Your task to perform on an android device: open a bookmark in the chrome app Image 0: 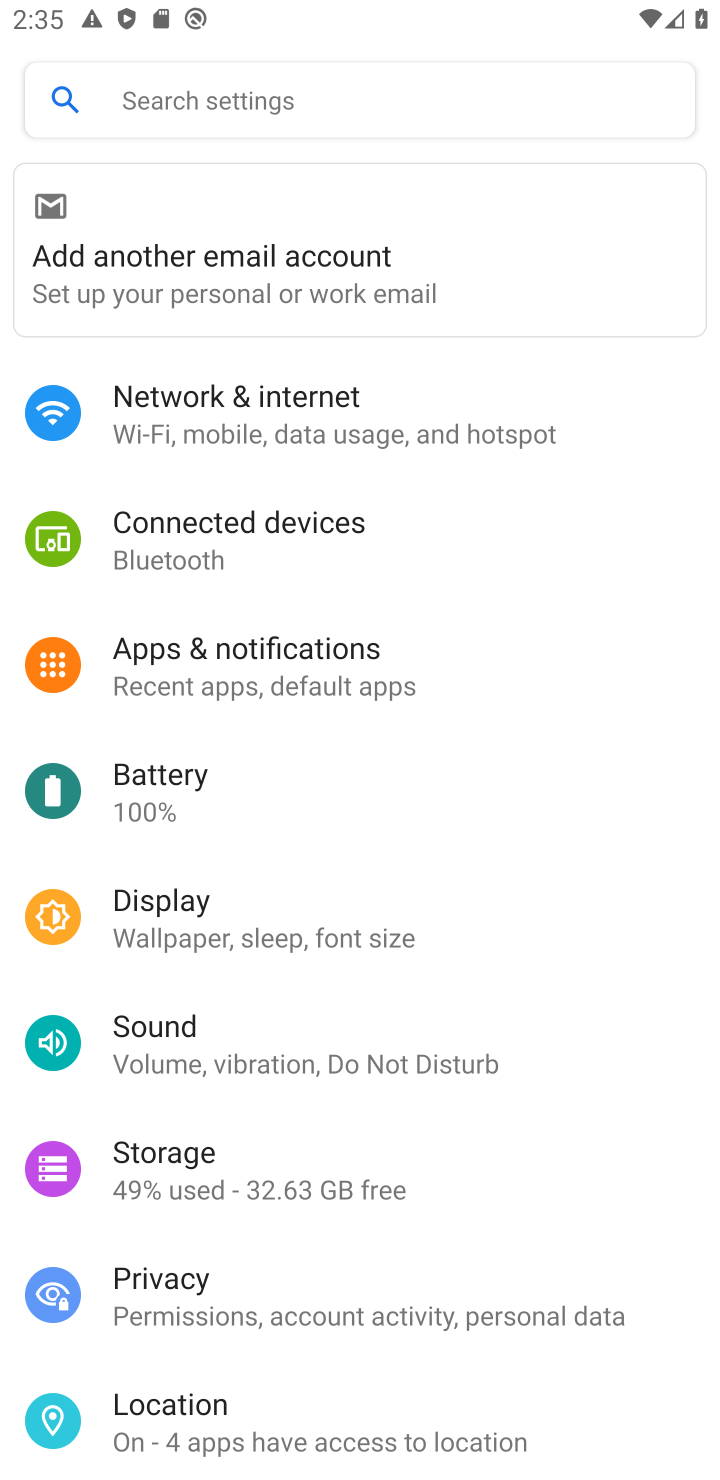
Step 0: press home button
Your task to perform on an android device: open a bookmark in the chrome app Image 1: 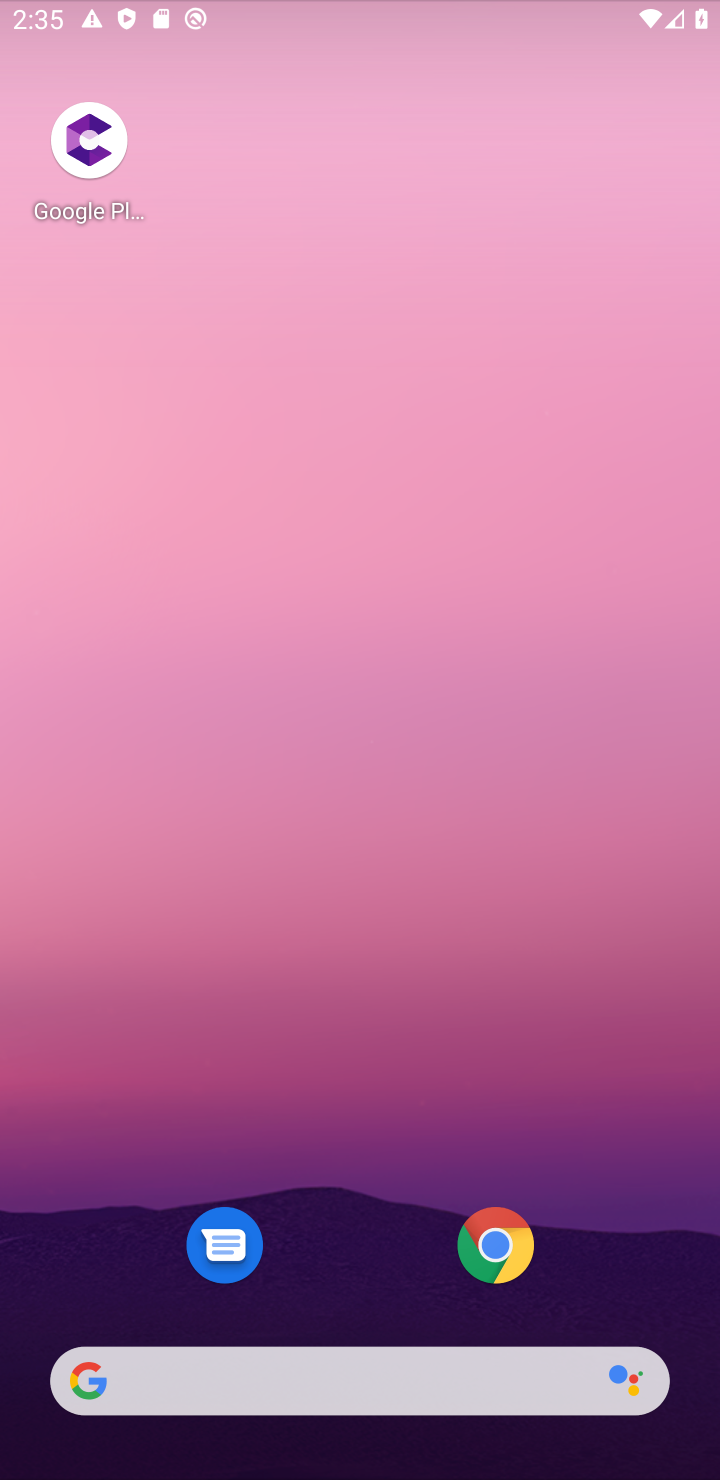
Step 1: drag from (353, 900) to (379, 488)
Your task to perform on an android device: open a bookmark in the chrome app Image 2: 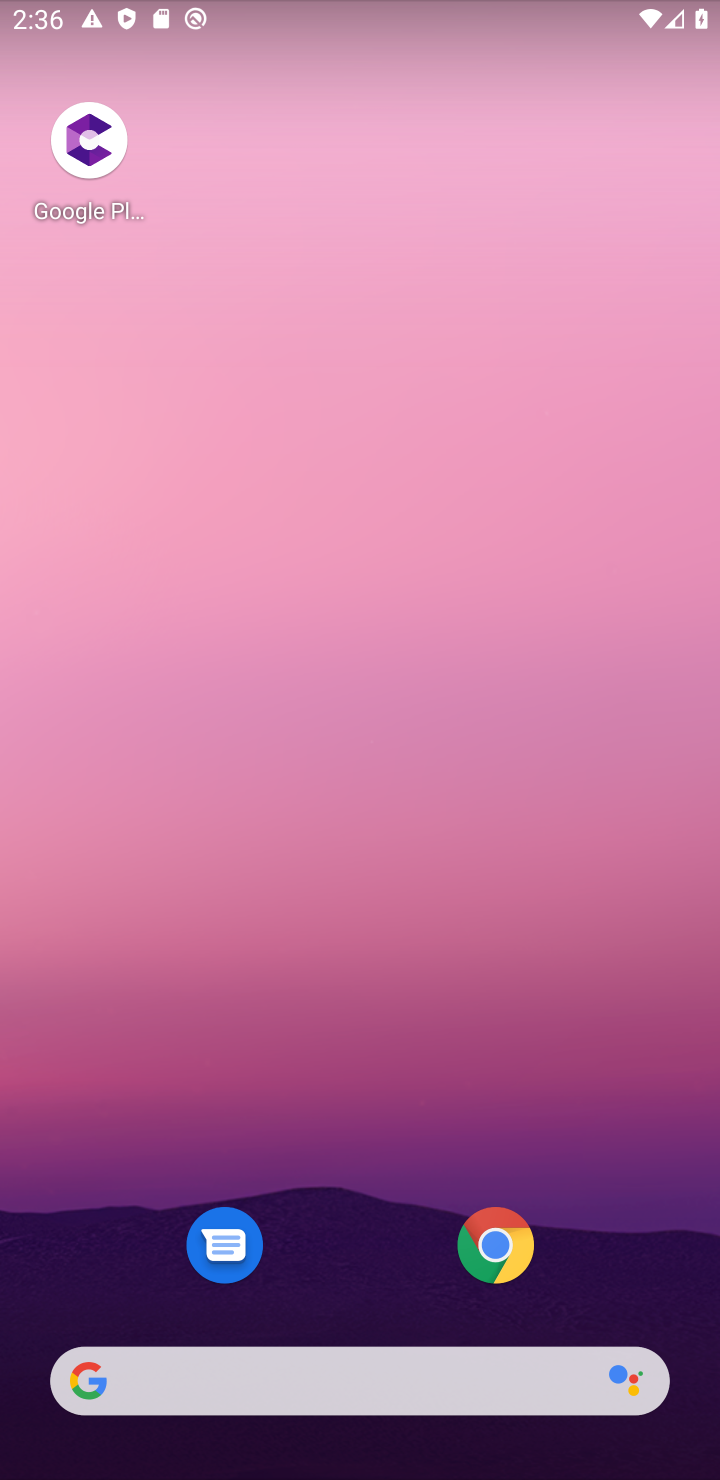
Step 2: drag from (391, 1144) to (383, 633)
Your task to perform on an android device: open a bookmark in the chrome app Image 3: 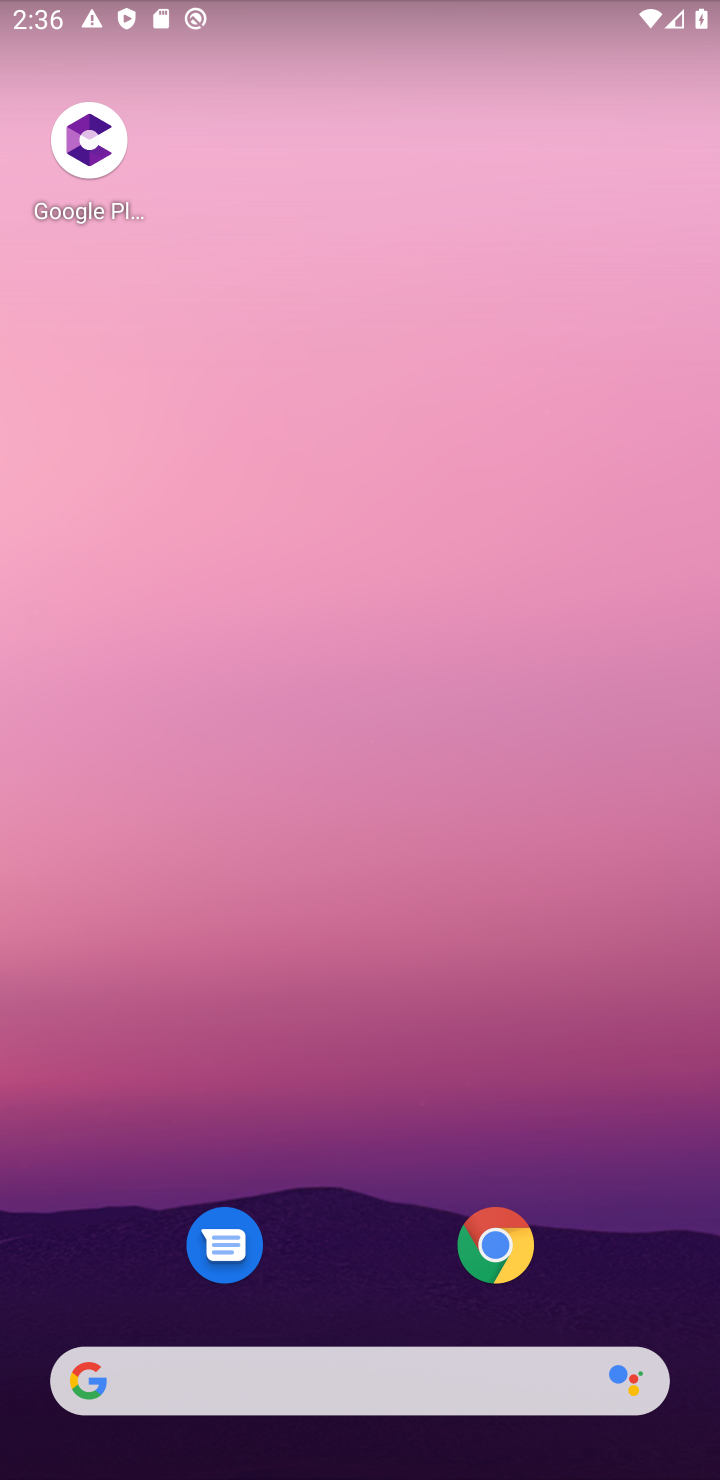
Step 3: drag from (378, 1226) to (479, 265)
Your task to perform on an android device: open a bookmark in the chrome app Image 4: 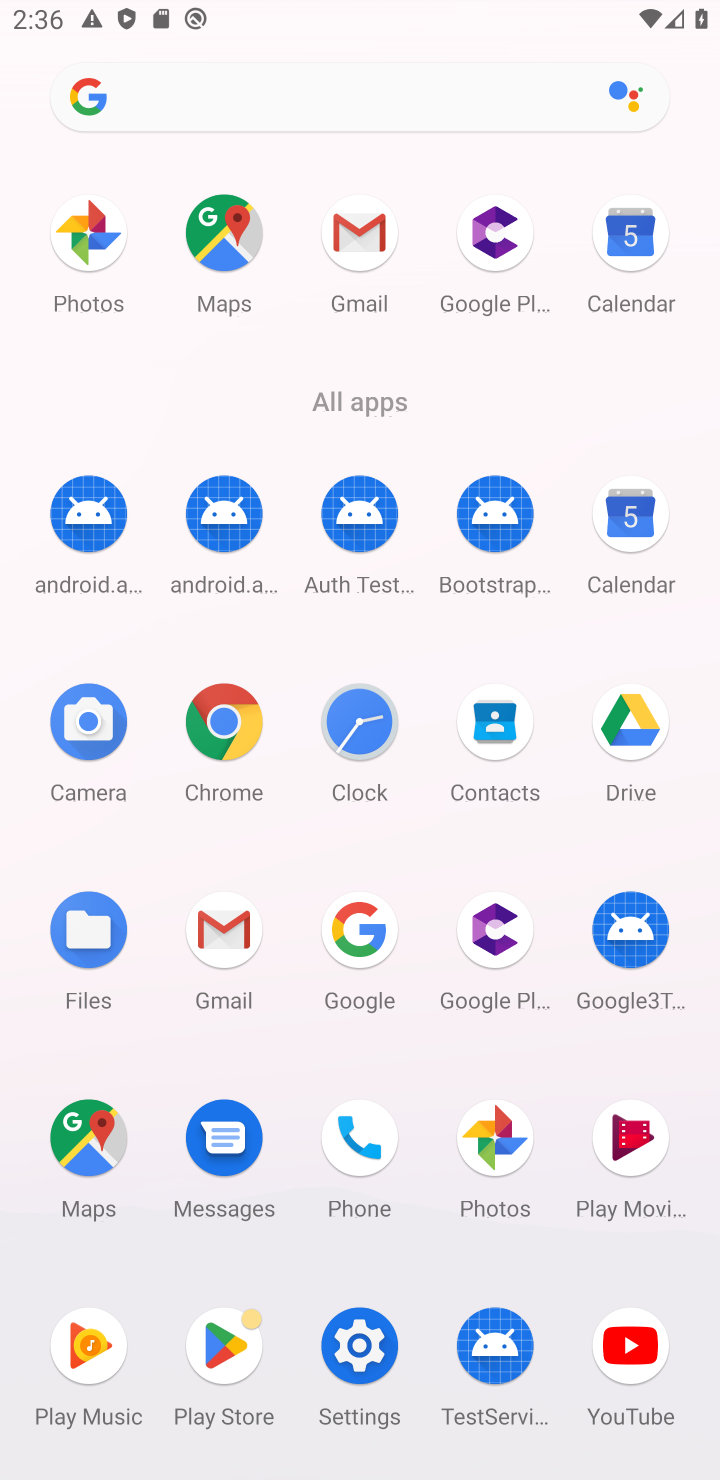
Step 4: click (230, 701)
Your task to perform on an android device: open a bookmark in the chrome app Image 5: 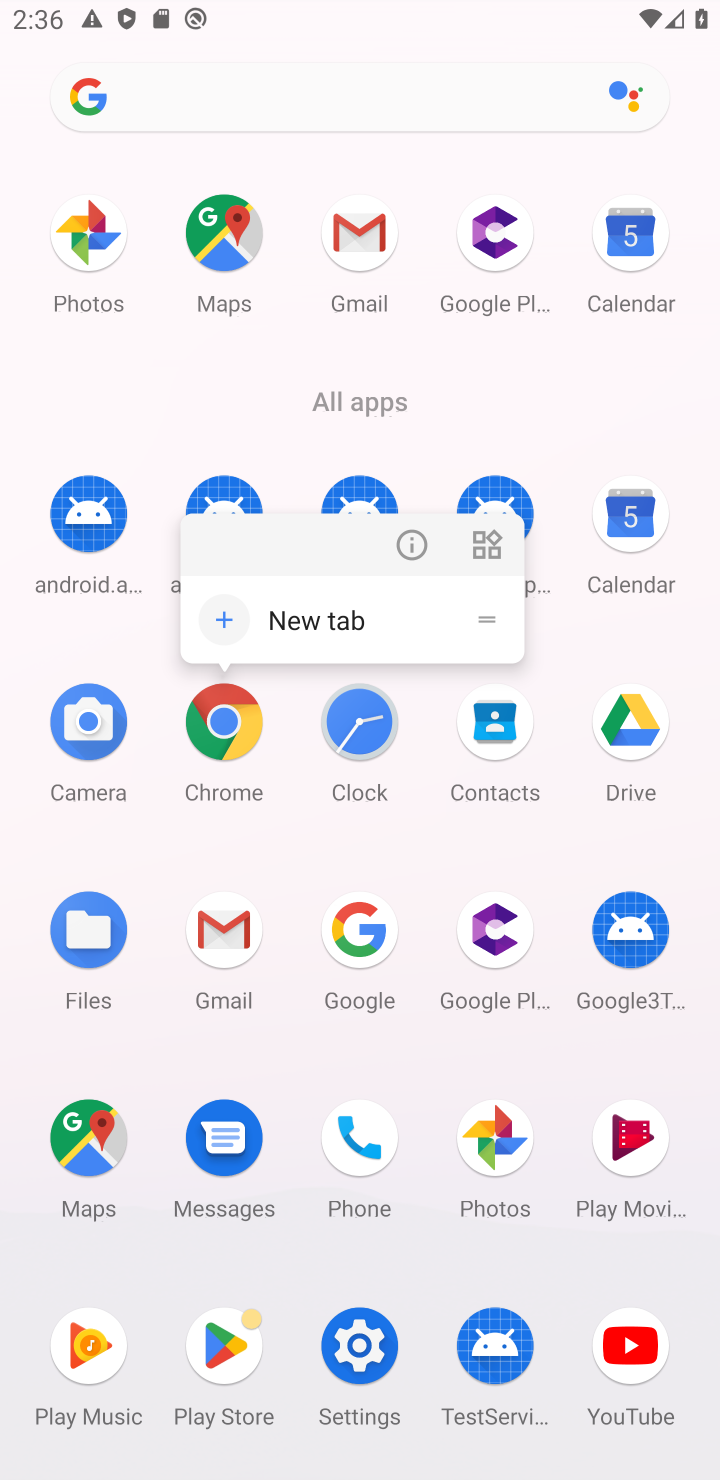
Step 5: click (228, 726)
Your task to perform on an android device: open a bookmark in the chrome app Image 6: 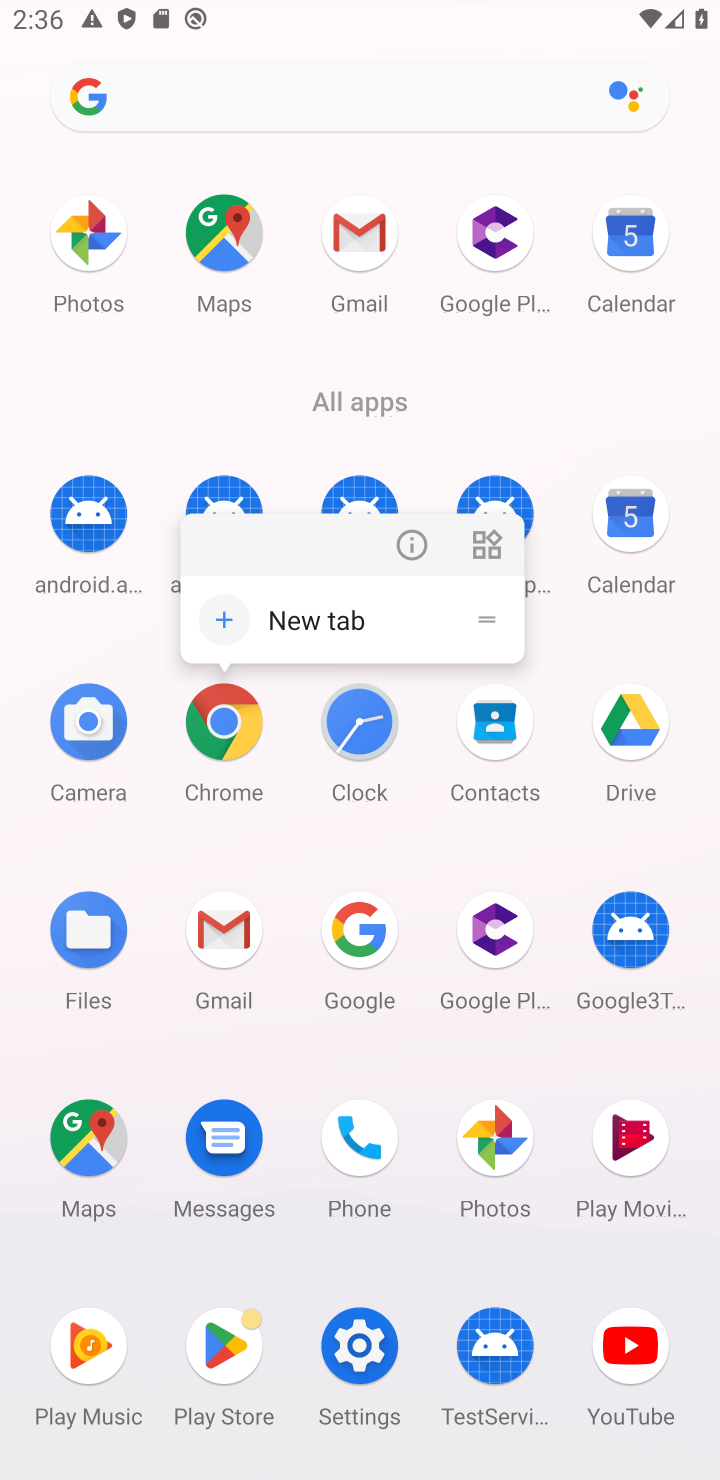
Step 6: click (228, 752)
Your task to perform on an android device: open a bookmark in the chrome app Image 7: 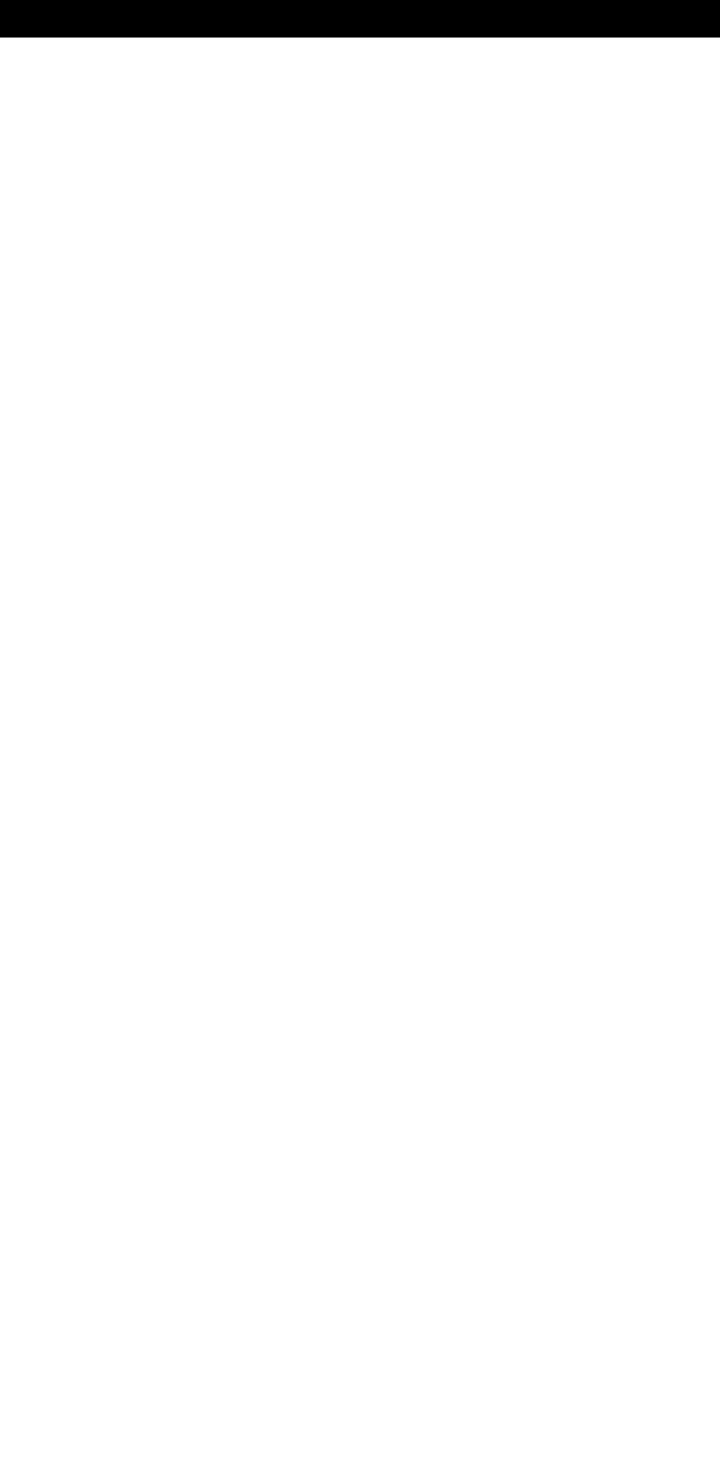
Step 7: click (224, 729)
Your task to perform on an android device: open a bookmark in the chrome app Image 8: 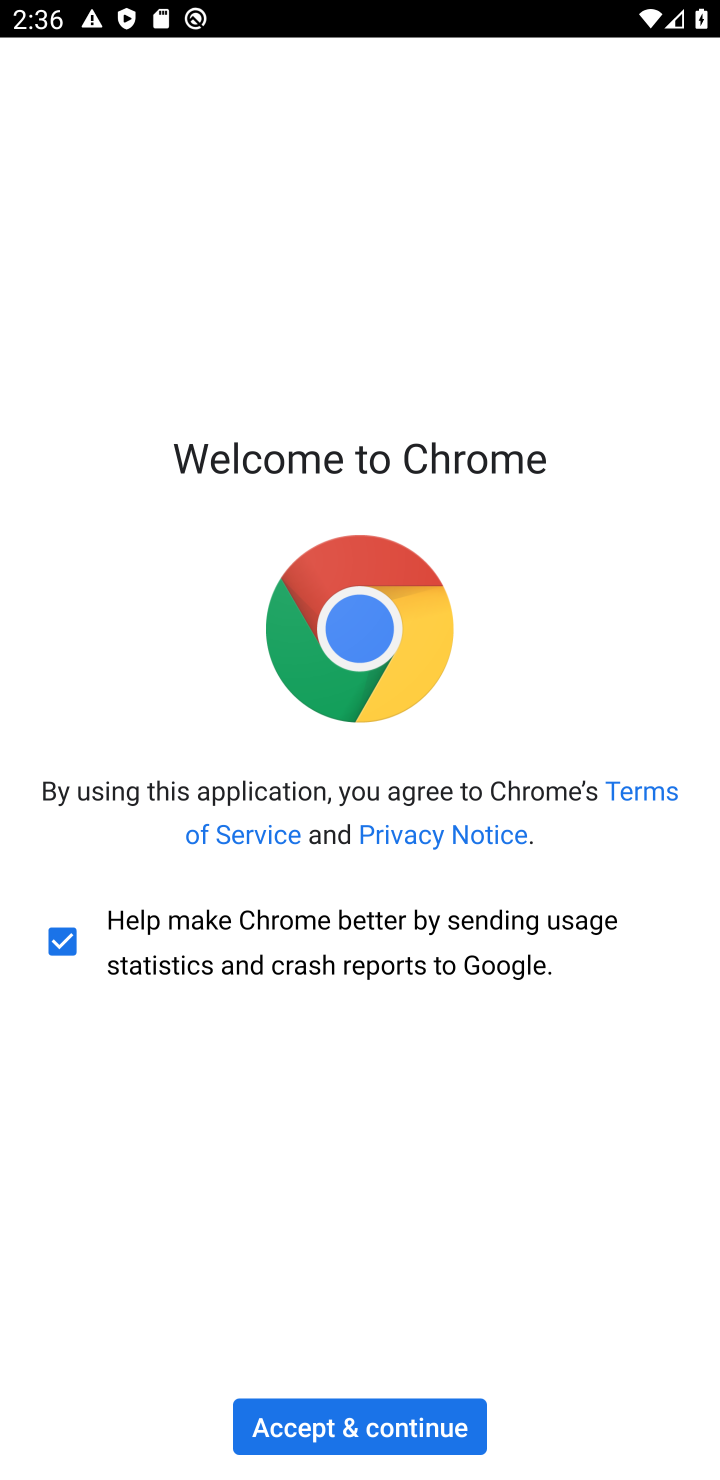
Step 8: click (371, 1416)
Your task to perform on an android device: open a bookmark in the chrome app Image 9: 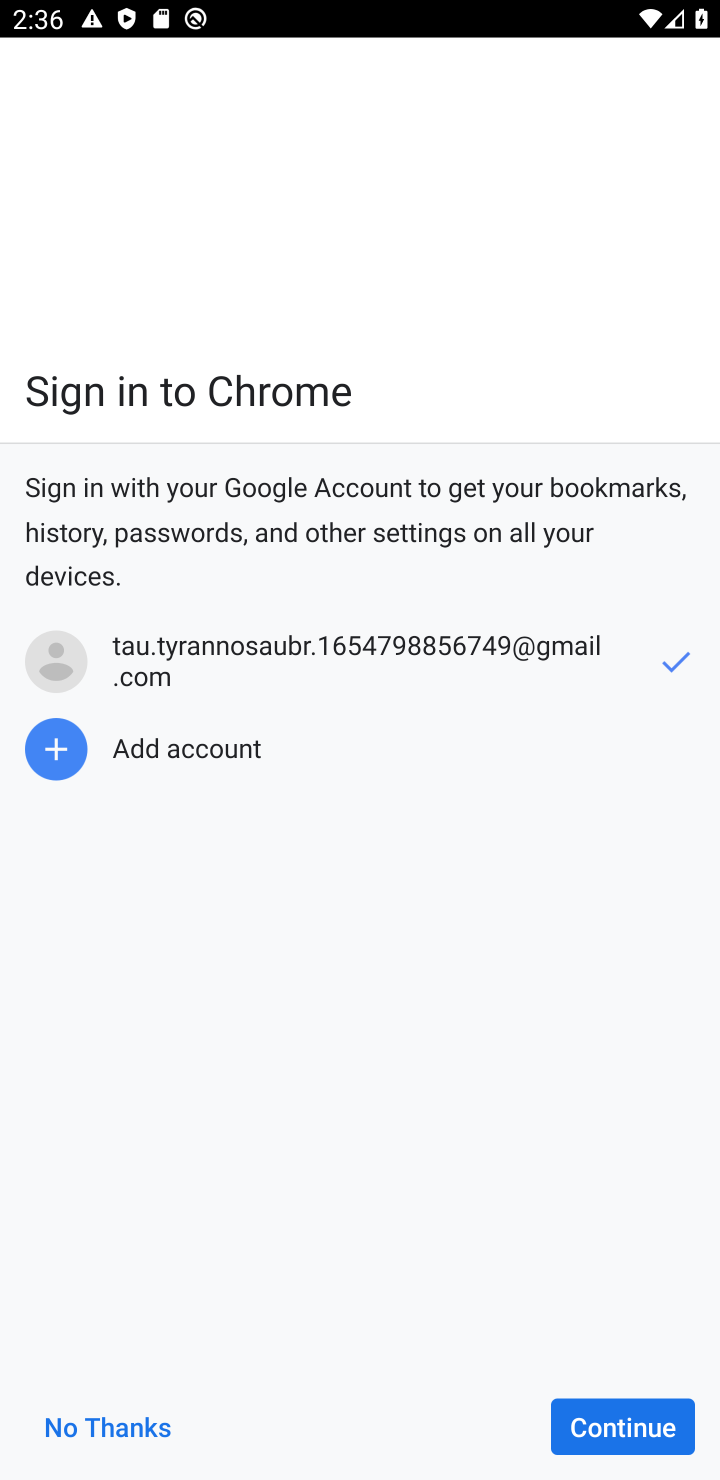
Step 9: click (627, 1419)
Your task to perform on an android device: open a bookmark in the chrome app Image 10: 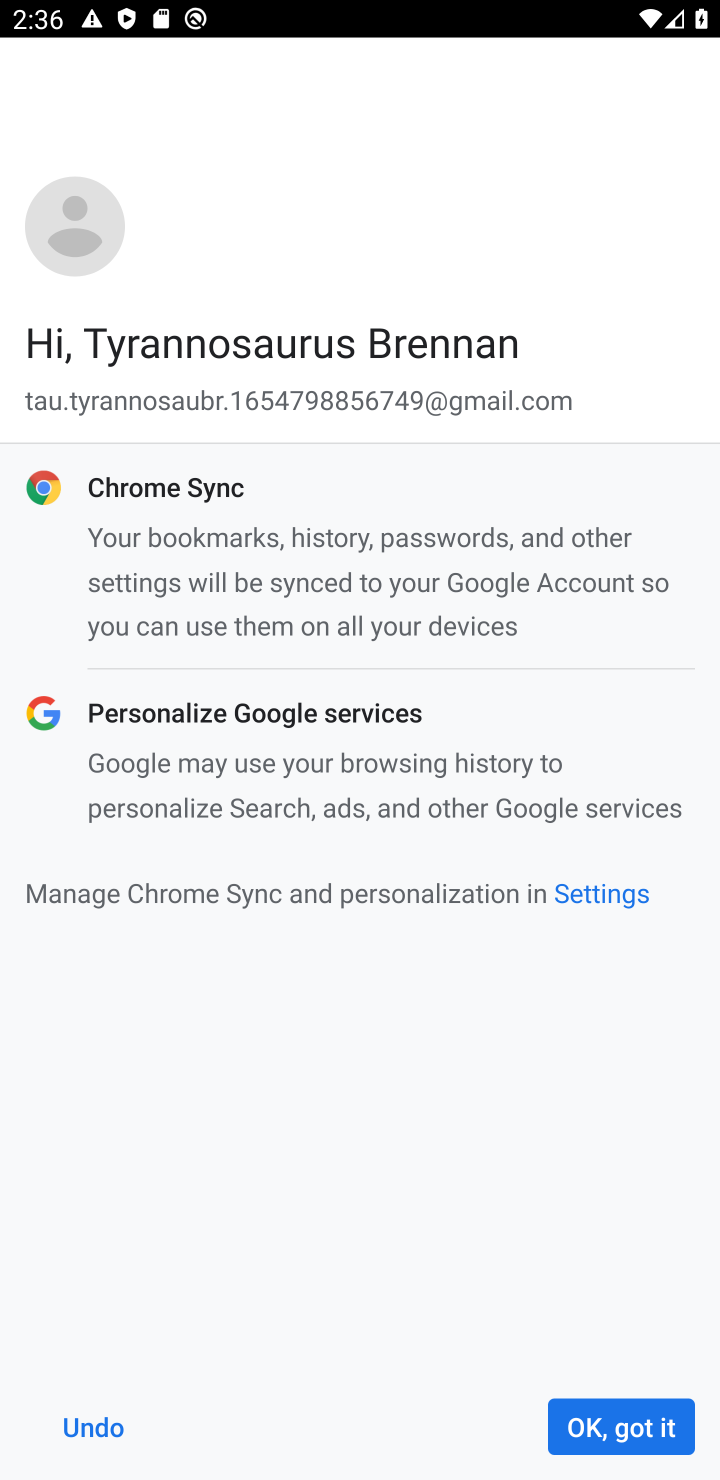
Step 10: click (627, 1419)
Your task to perform on an android device: open a bookmark in the chrome app Image 11: 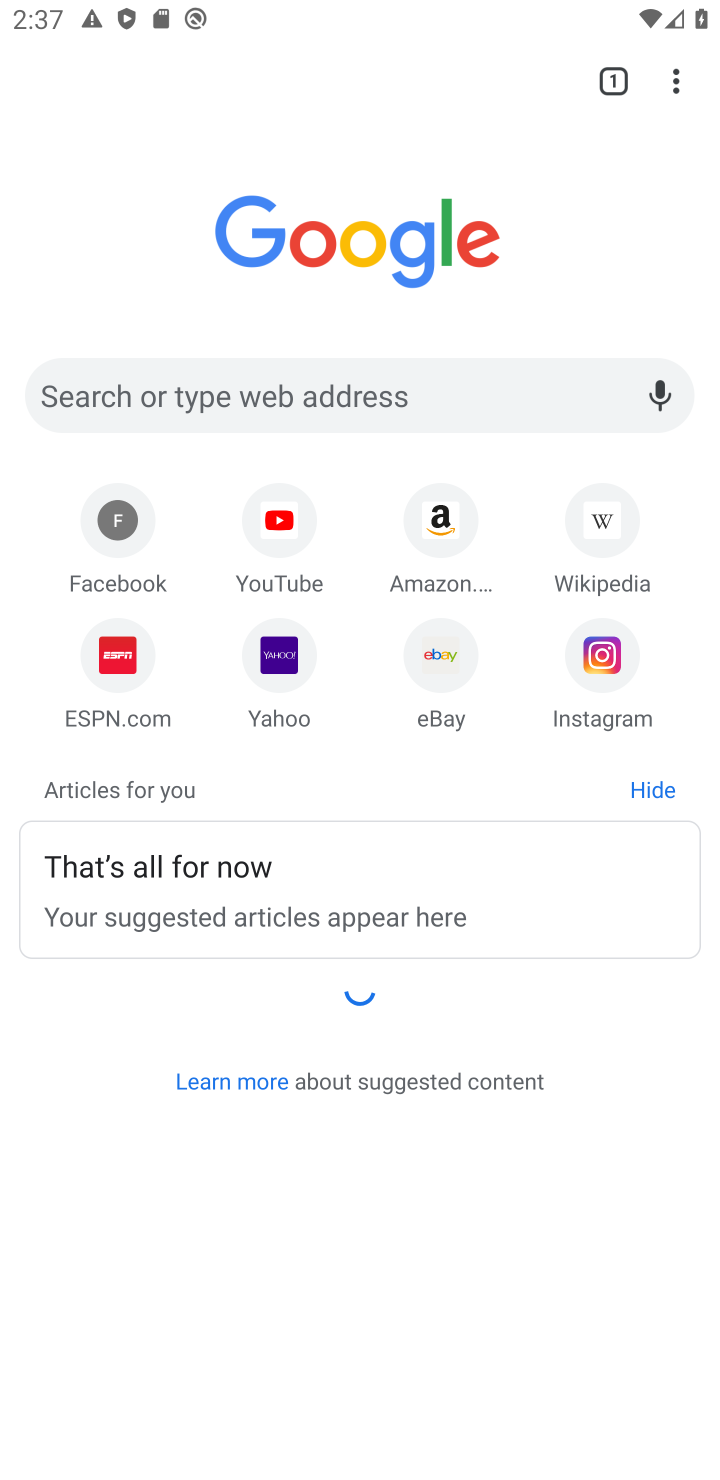
Step 11: click (689, 72)
Your task to perform on an android device: open a bookmark in the chrome app Image 12: 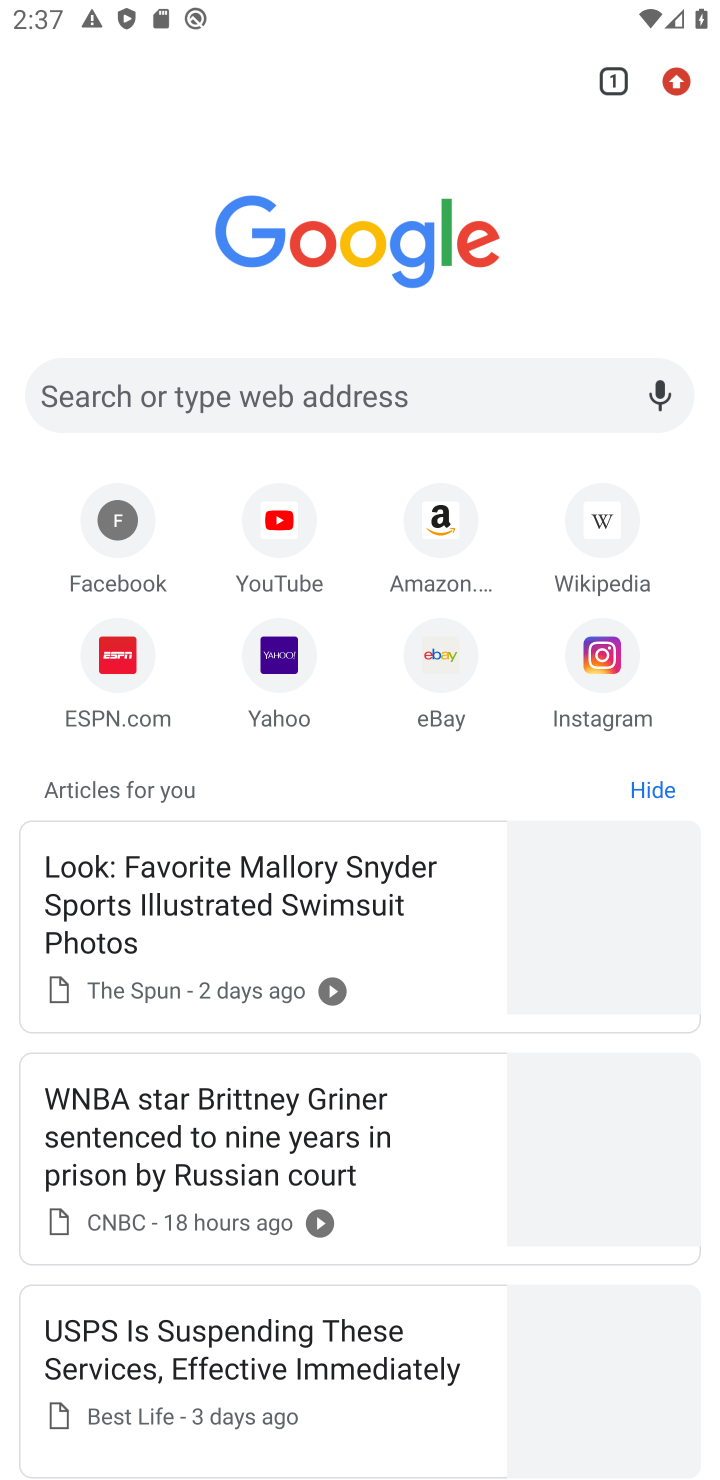
Step 12: click (673, 83)
Your task to perform on an android device: open a bookmark in the chrome app Image 13: 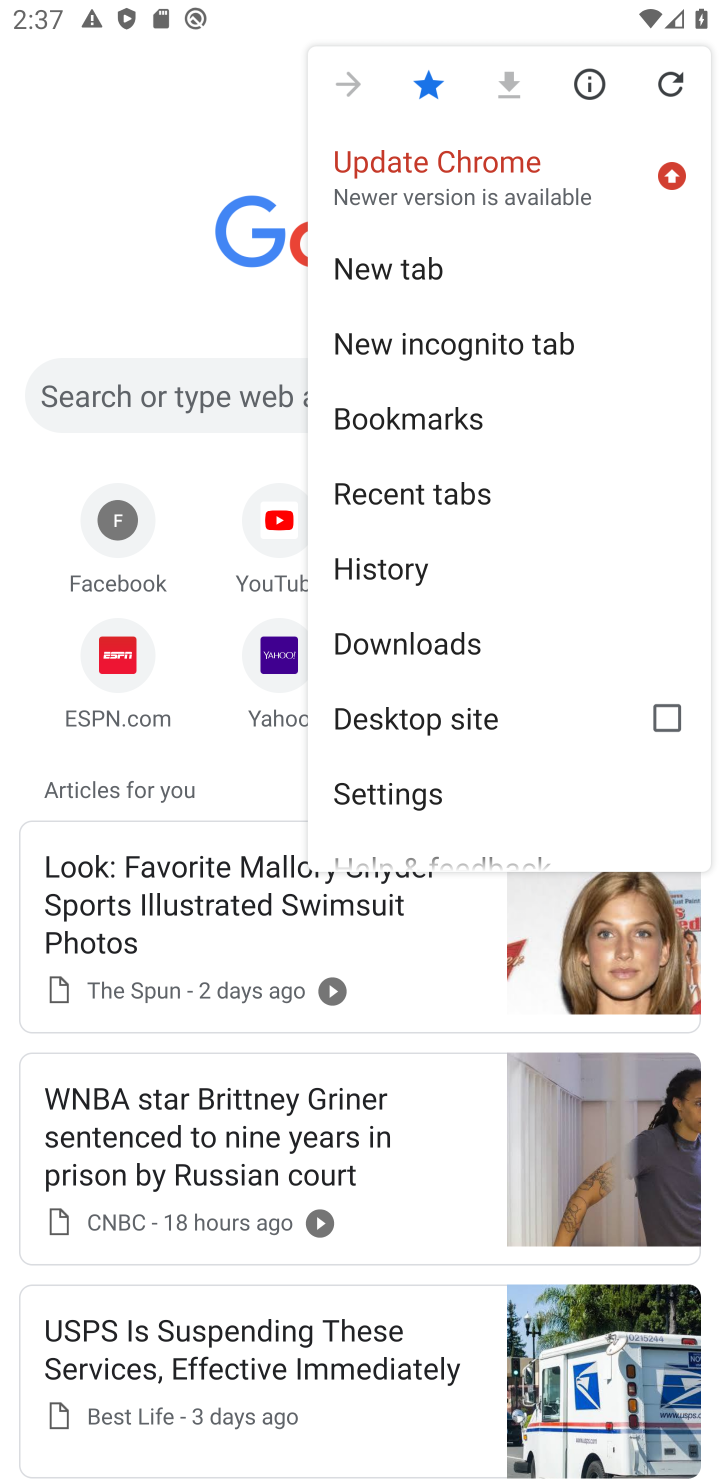
Step 13: click (396, 423)
Your task to perform on an android device: open a bookmark in the chrome app Image 14: 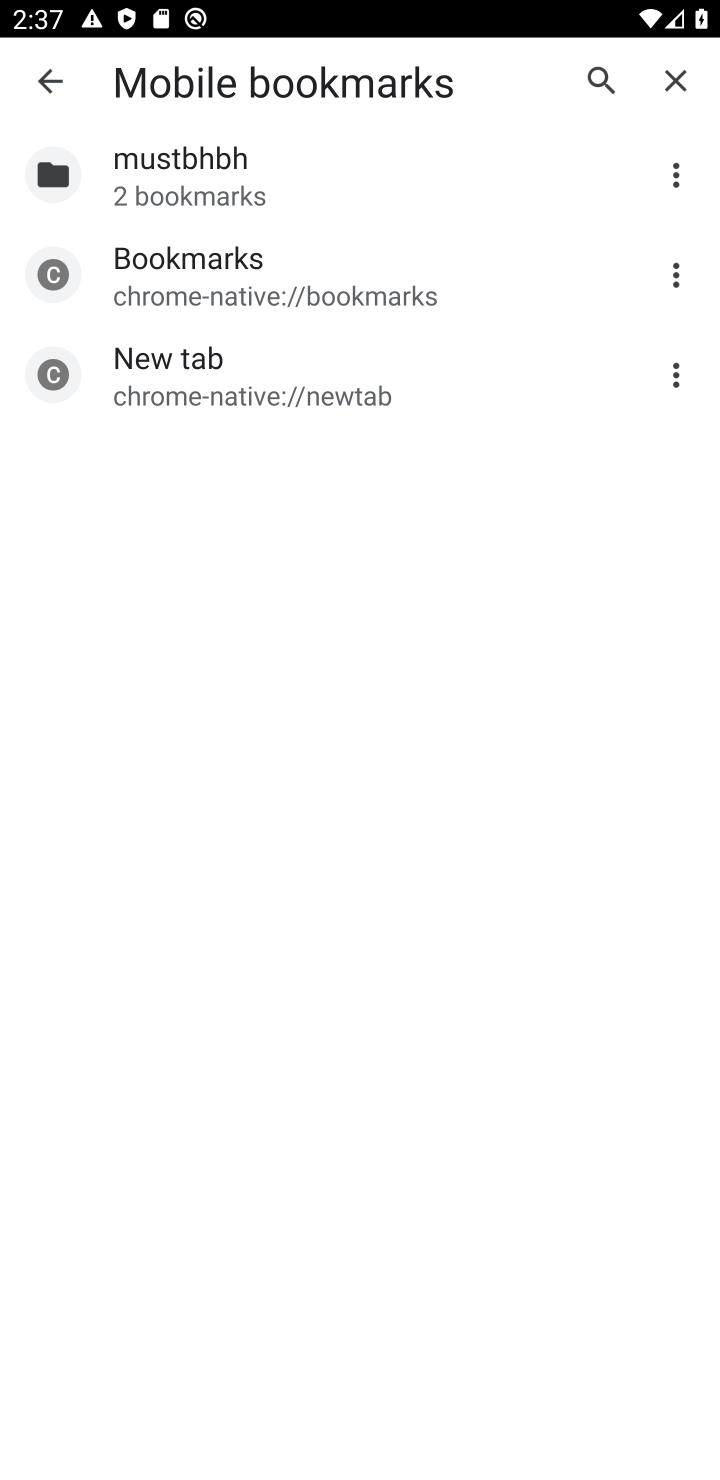
Step 14: task complete